Your task to perform on an android device: Open calendar and show me the fourth week of next month Image 0: 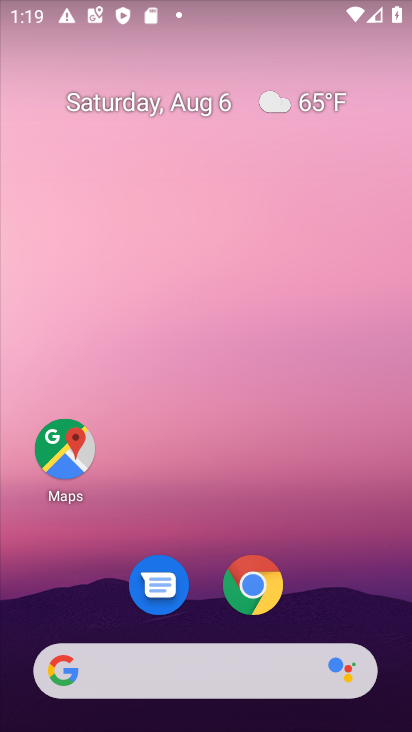
Step 0: drag from (199, 442) to (211, 0)
Your task to perform on an android device: Open calendar and show me the fourth week of next month Image 1: 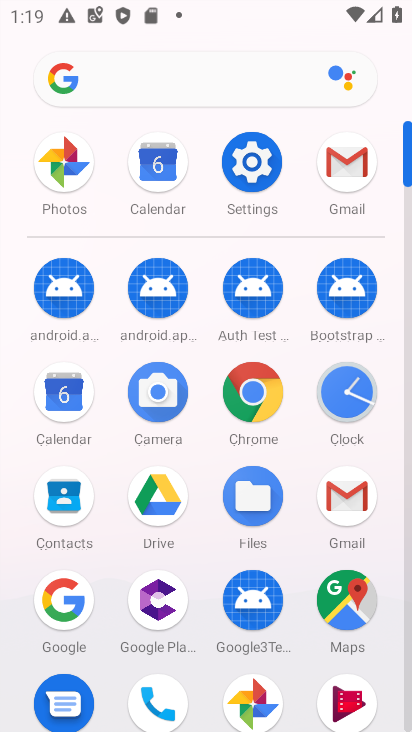
Step 1: click (153, 166)
Your task to perform on an android device: Open calendar and show me the fourth week of next month Image 2: 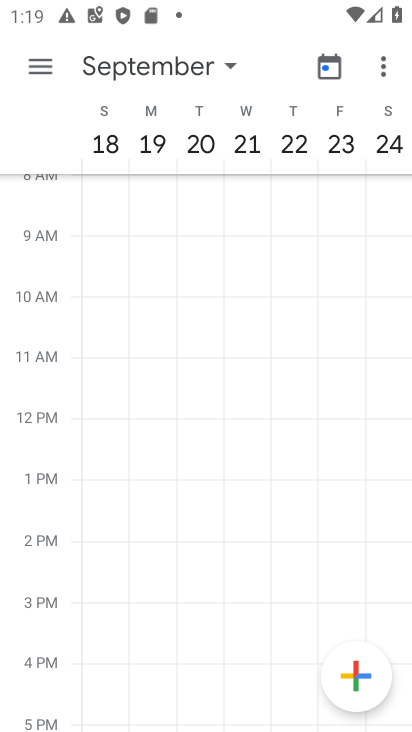
Step 2: task complete